Your task to perform on an android device: move a message to another label in the gmail app Image 0: 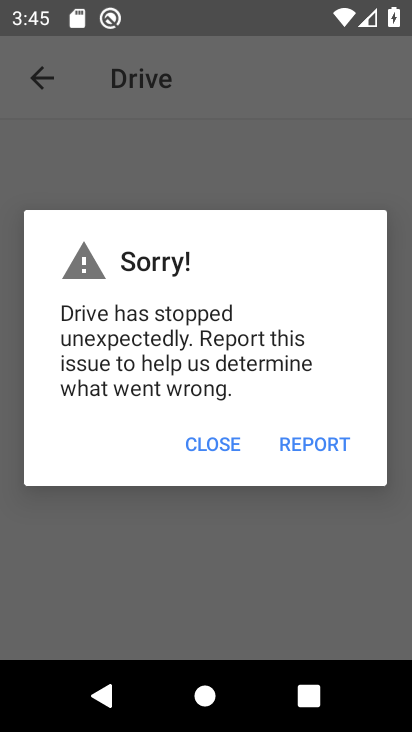
Step 0: click (190, 442)
Your task to perform on an android device: move a message to another label in the gmail app Image 1: 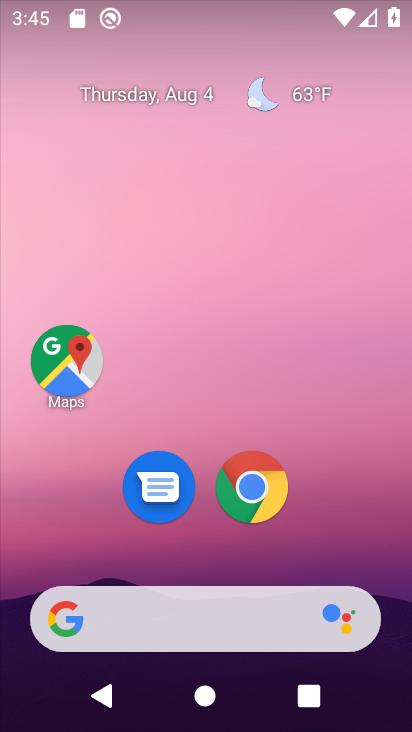
Step 1: press back button
Your task to perform on an android device: move a message to another label in the gmail app Image 2: 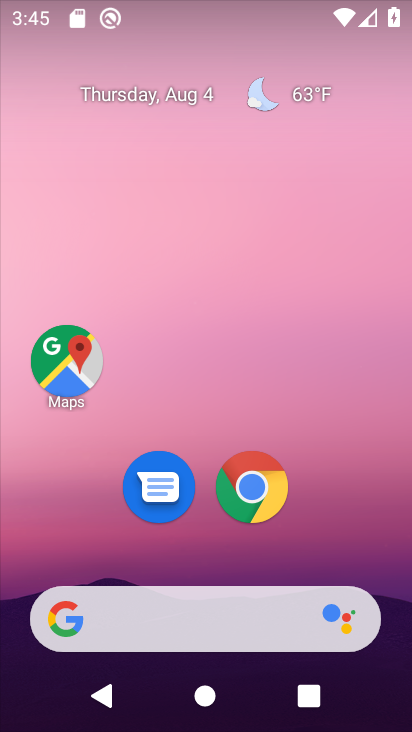
Step 2: drag from (72, 539) to (152, 93)
Your task to perform on an android device: move a message to another label in the gmail app Image 3: 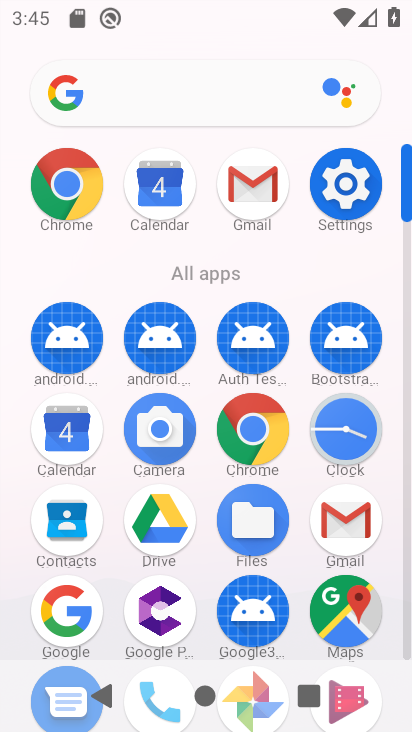
Step 3: click (270, 172)
Your task to perform on an android device: move a message to another label in the gmail app Image 4: 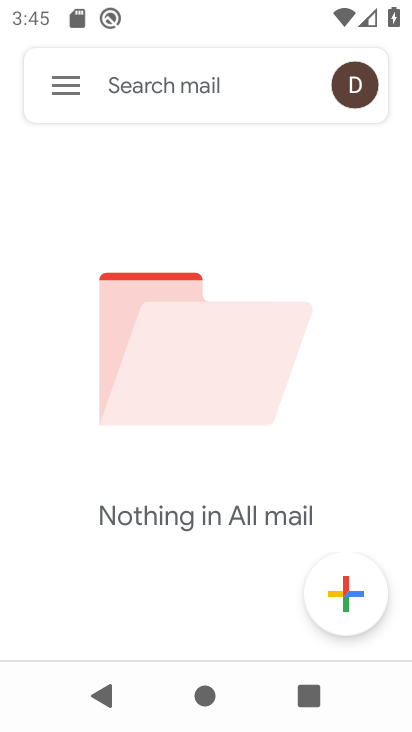
Step 4: task complete